Your task to perform on an android device: add a contact in the contacts app Image 0: 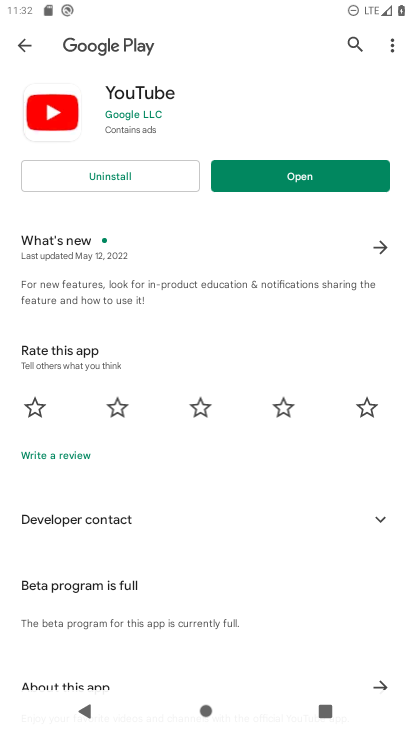
Step 0: press home button
Your task to perform on an android device: add a contact in the contacts app Image 1: 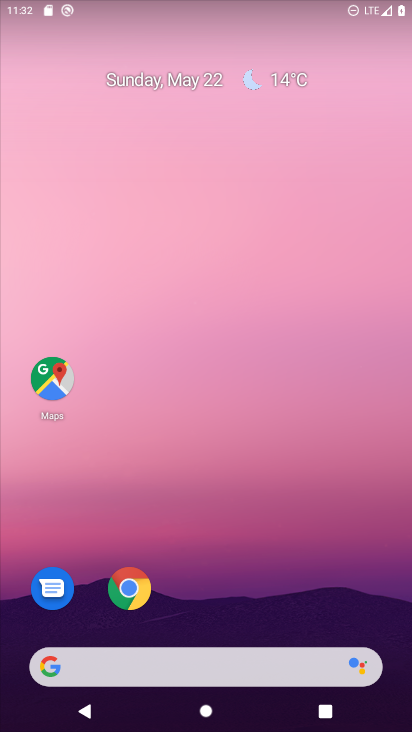
Step 1: drag from (249, 598) to (226, 188)
Your task to perform on an android device: add a contact in the contacts app Image 2: 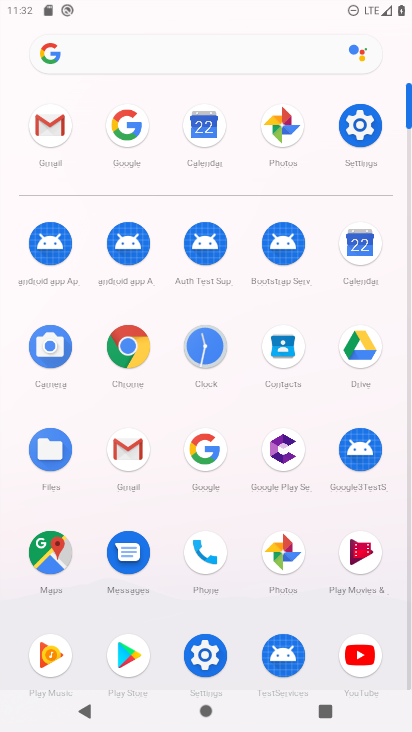
Step 2: click (261, 359)
Your task to perform on an android device: add a contact in the contacts app Image 3: 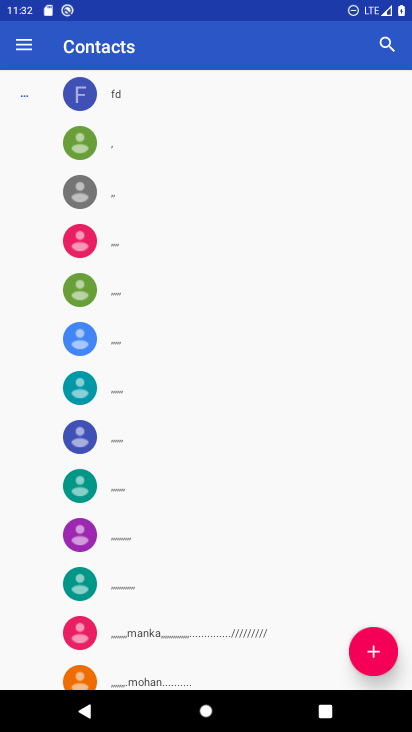
Step 3: click (369, 636)
Your task to perform on an android device: add a contact in the contacts app Image 4: 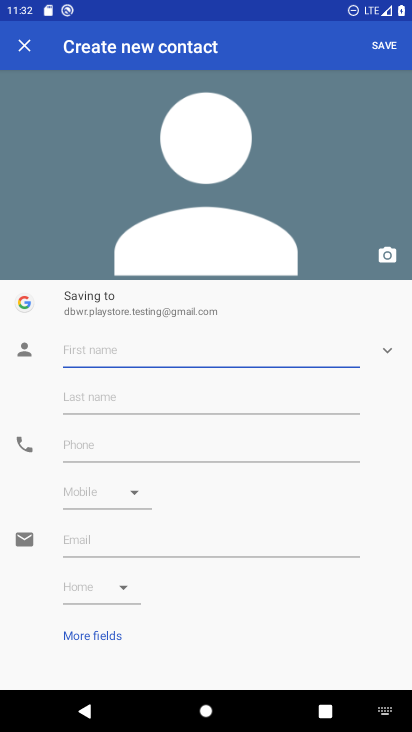
Step 4: type "gfkjh"
Your task to perform on an android device: add a contact in the contacts app Image 5: 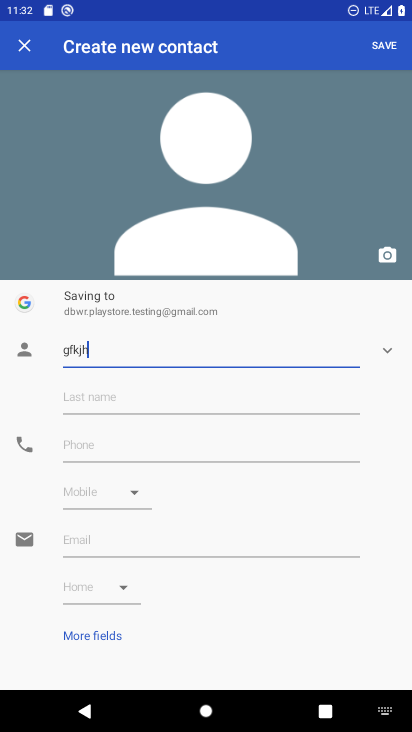
Step 5: click (108, 431)
Your task to perform on an android device: add a contact in the contacts app Image 6: 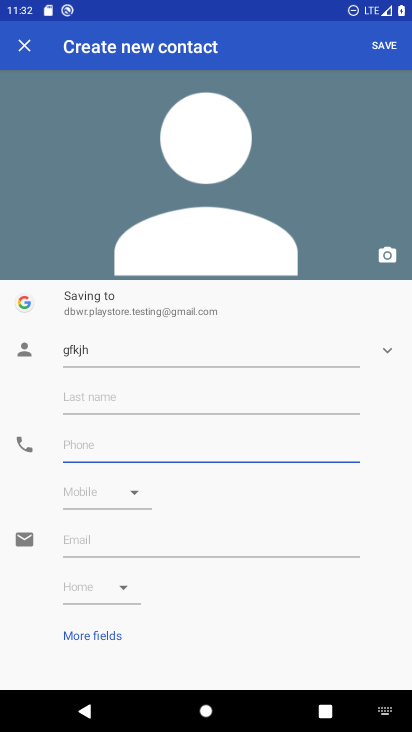
Step 6: type "8875957"
Your task to perform on an android device: add a contact in the contacts app Image 7: 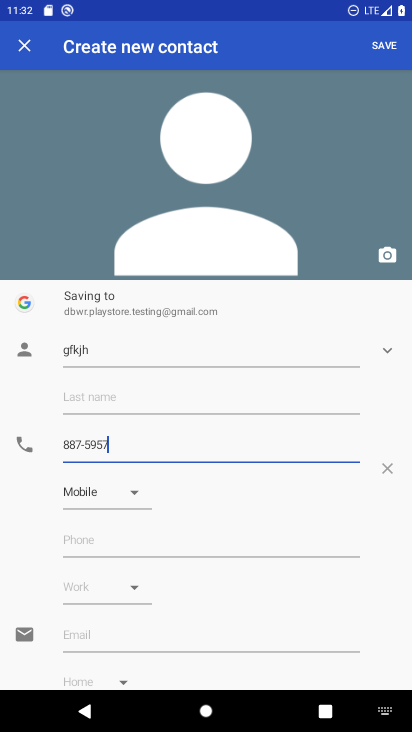
Step 7: click (369, 48)
Your task to perform on an android device: add a contact in the contacts app Image 8: 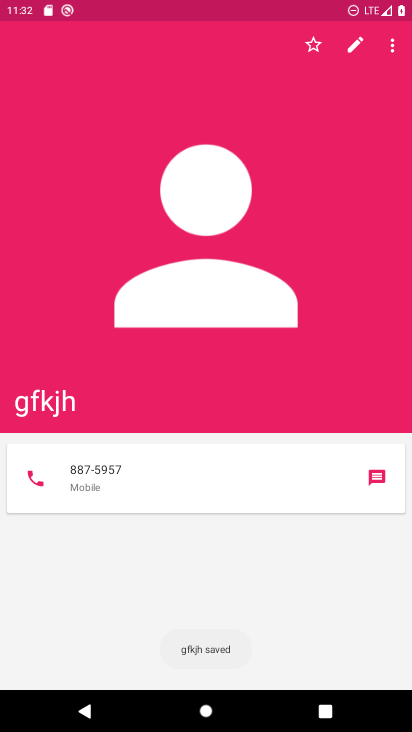
Step 8: task complete